Your task to perform on an android device: What is the news today? Image 0: 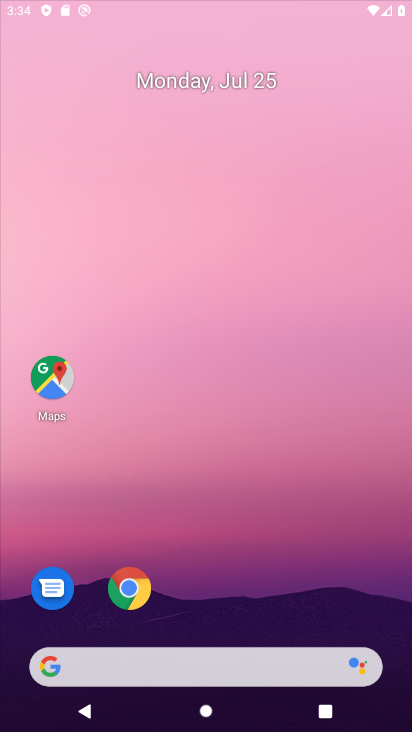
Step 0: click (242, 168)
Your task to perform on an android device: What is the news today? Image 1: 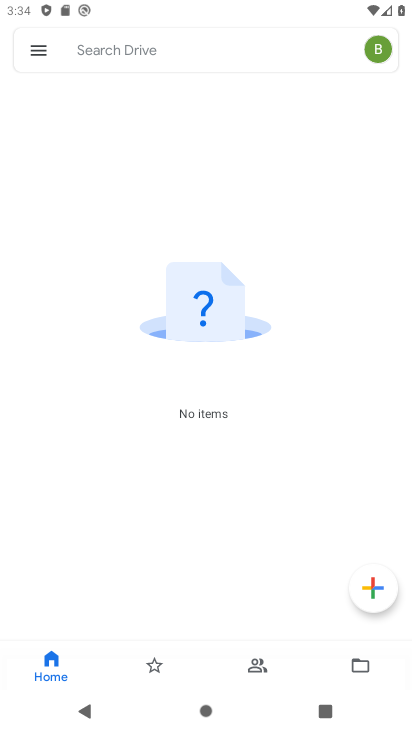
Step 1: press back button
Your task to perform on an android device: What is the news today? Image 2: 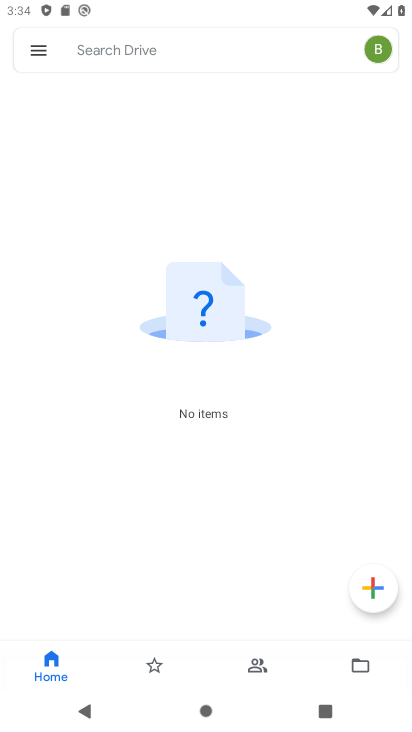
Step 2: press back button
Your task to perform on an android device: What is the news today? Image 3: 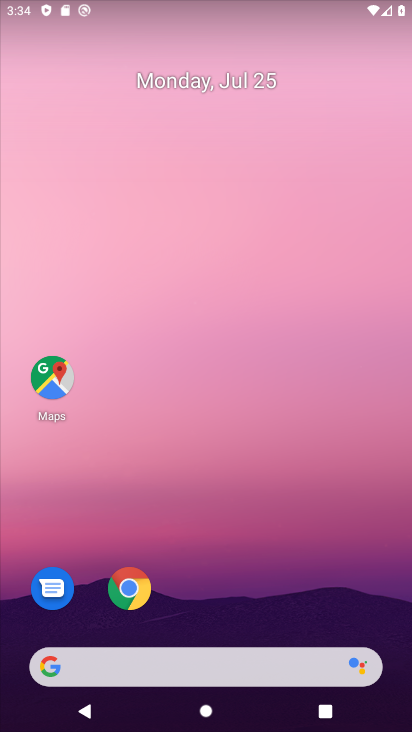
Step 3: drag from (254, 595) to (238, 287)
Your task to perform on an android device: What is the news today? Image 4: 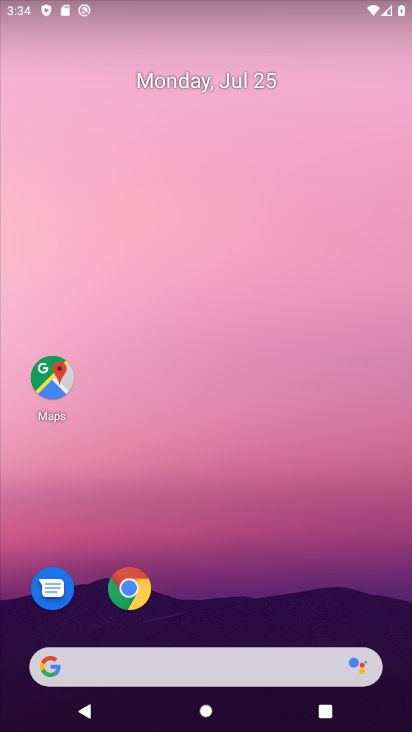
Step 4: drag from (339, 611) to (356, 224)
Your task to perform on an android device: What is the news today? Image 5: 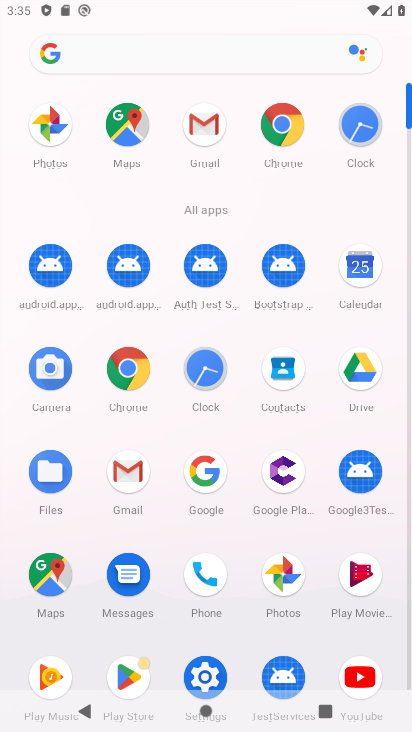
Step 5: click (302, 117)
Your task to perform on an android device: What is the news today? Image 6: 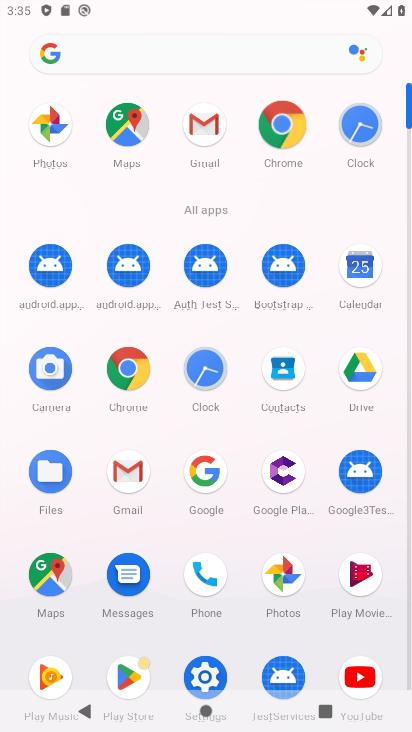
Step 6: click (297, 121)
Your task to perform on an android device: What is the news today? Image 7: 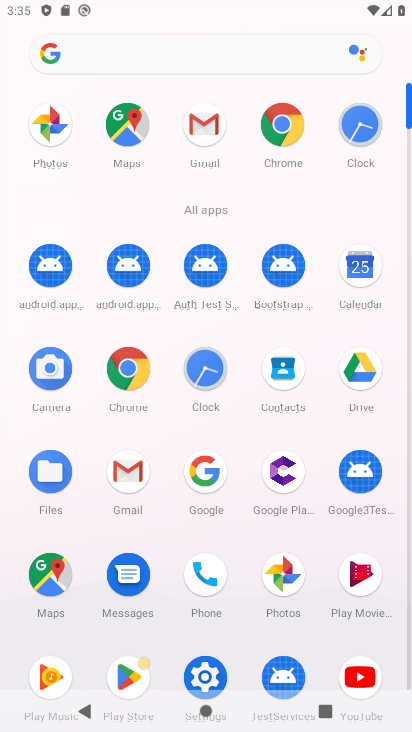
Step 7: click (290, 120)
Your task to perform on an android device: What is the news today? Image 8: 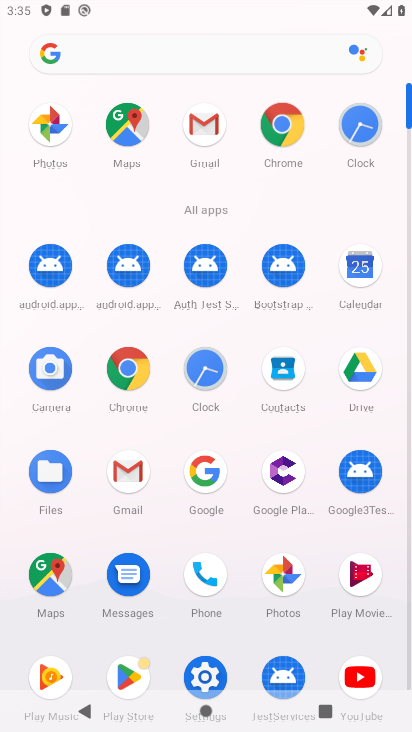
Step 8: click (289, 121)
Your task to perform on an android device: What is the news today? Image 9: 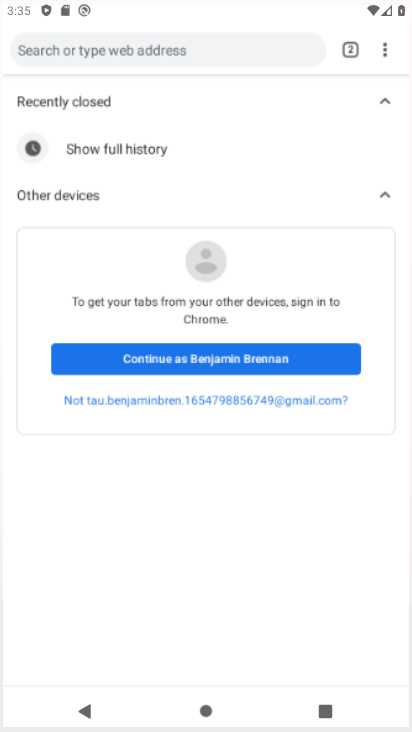
Step 9: click (291, 123)
Your task to perform on an android device: What is the news today? Image 10: 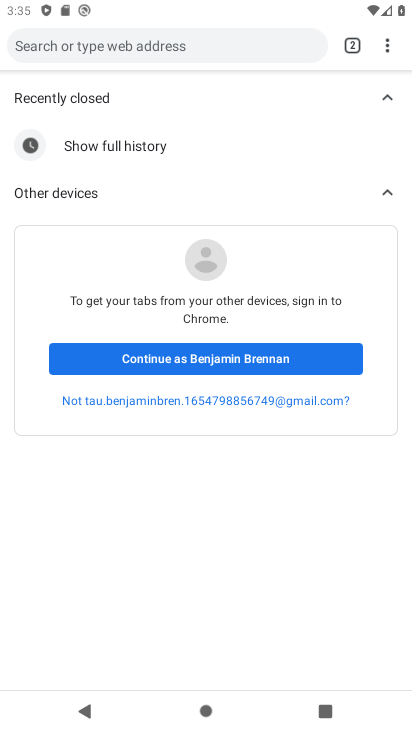
Step 10: click (382, 185)
Your task to perform on an android device: What is the news today? Image 11: 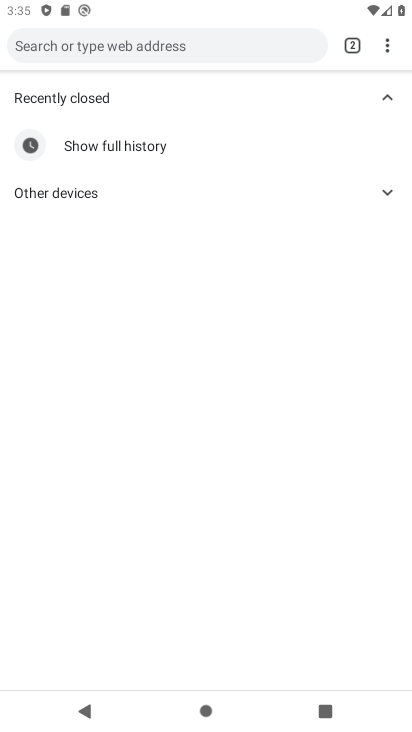
Step 11: task complete